Your task to perform on an android device: Open eBay Image 0: 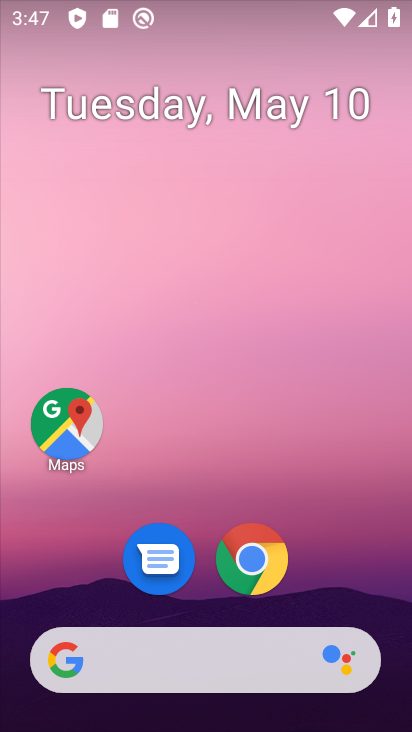
Step 0: click (248, 580)
Your task to perform on an android device: Open eBay Image 1: 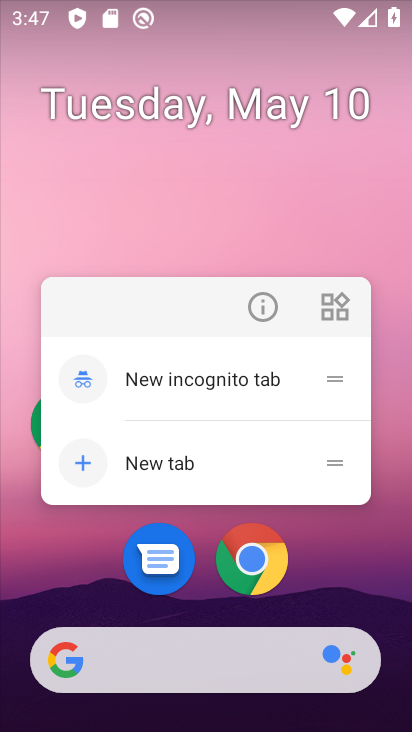
Step 1: click (251, 568)
Your task to perform on an android device: Open eBay Image 2: 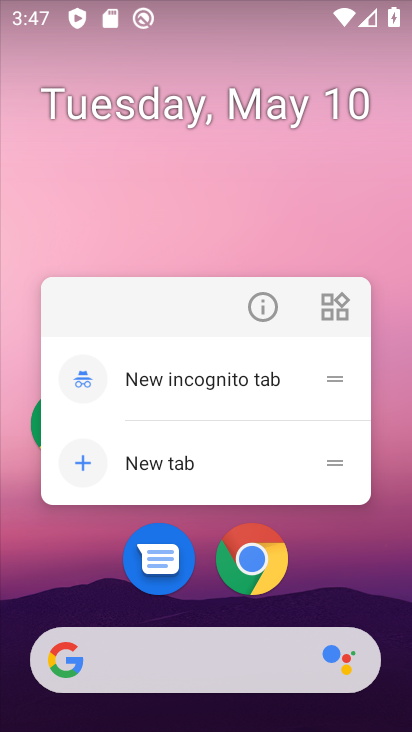
Step 2: click (252, 570)
Your task to perform on an android device: Open eBay Image 3: 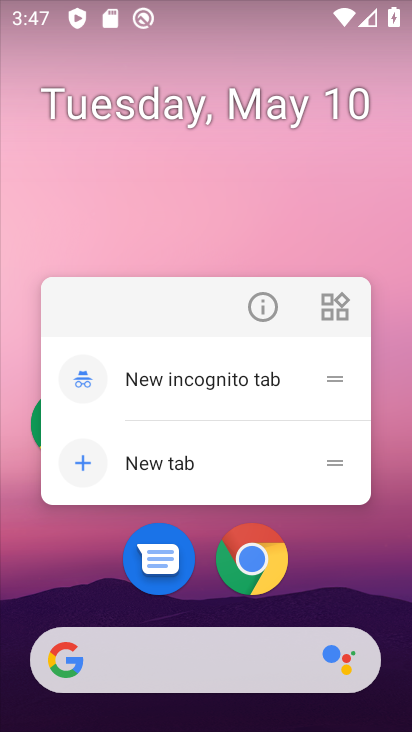
Step 3: click (260, 561)
Your task to perform on an android device: Open eBay Image 4: 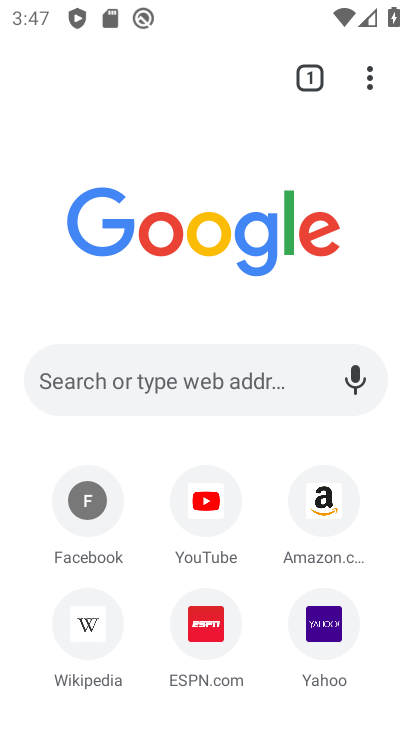
Step 4: click (197, 402)
Your task to perform on an android device: Open eBay Image 5: 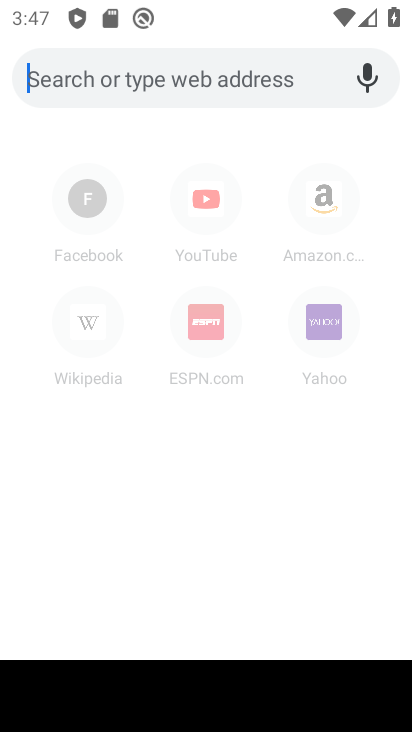
Step 5: type "ebay"
Your task to perform on an android device: Open eBay Image 6: 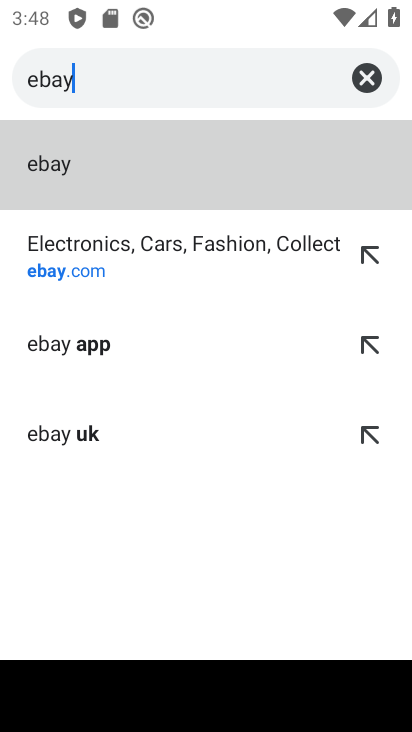
Step 6: click (142, 257)
Your task to perform on an android device: Open eBay Image 7: 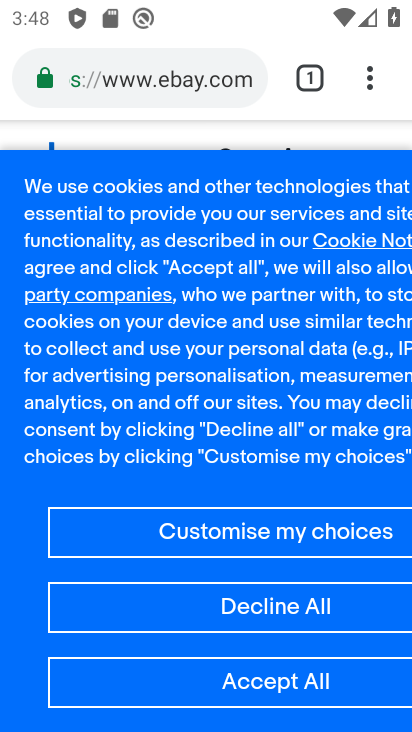
Step 7: click (310, 688)
Your task to perform on an android device: Open eBay Image 8: 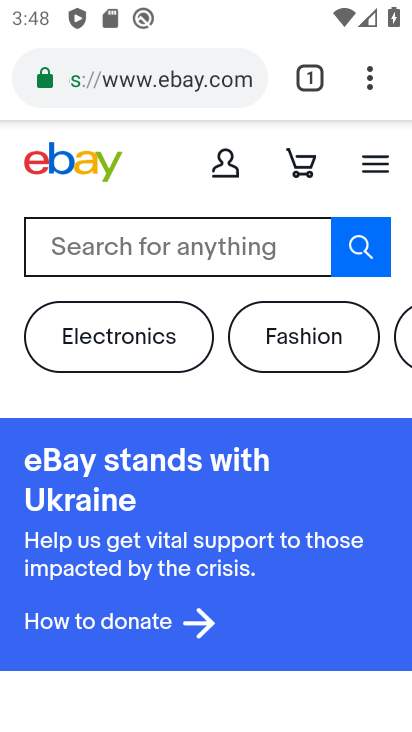
Step 8: task complete